Your task to perform on an android device: Check the weather Image 0: 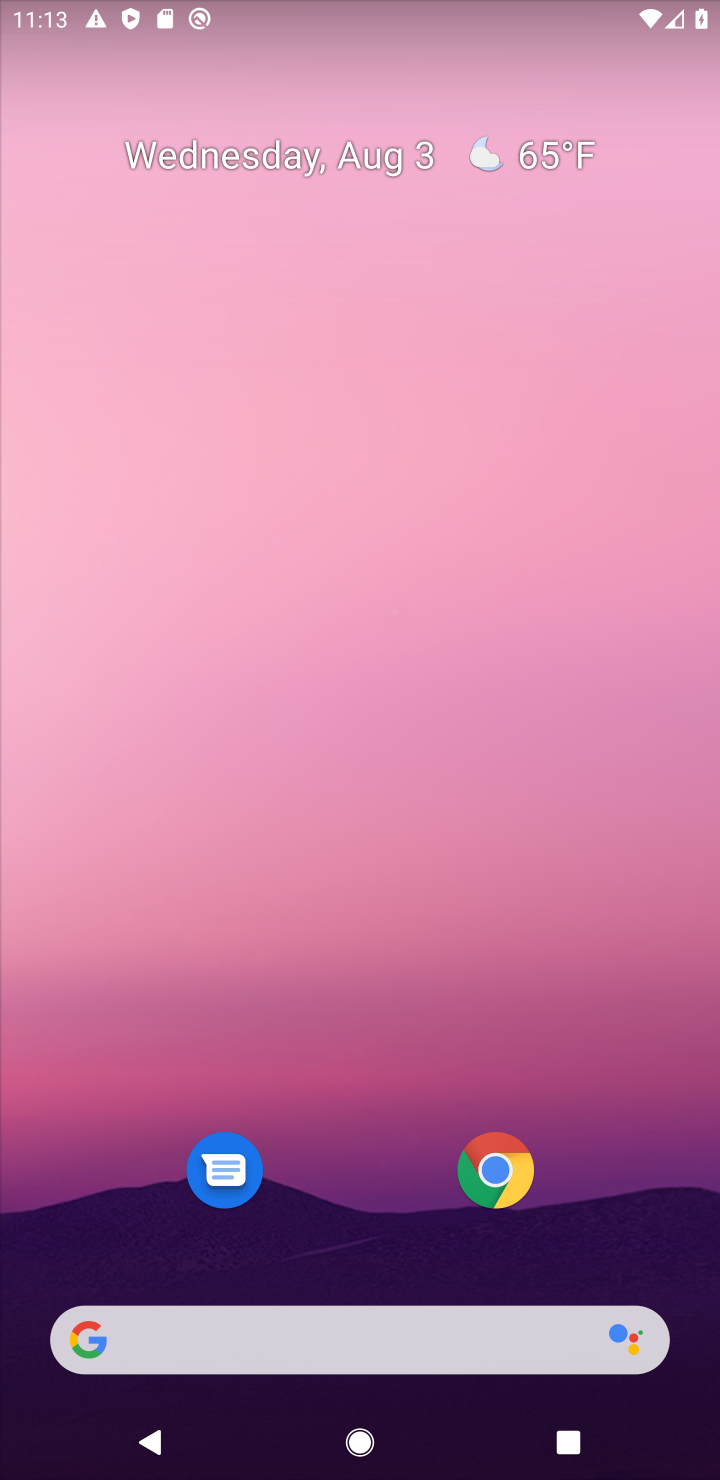
Step 0: drag from (264, 1146) to (400, 282)
Your task to perform on an android device: Check the weather Image 1: 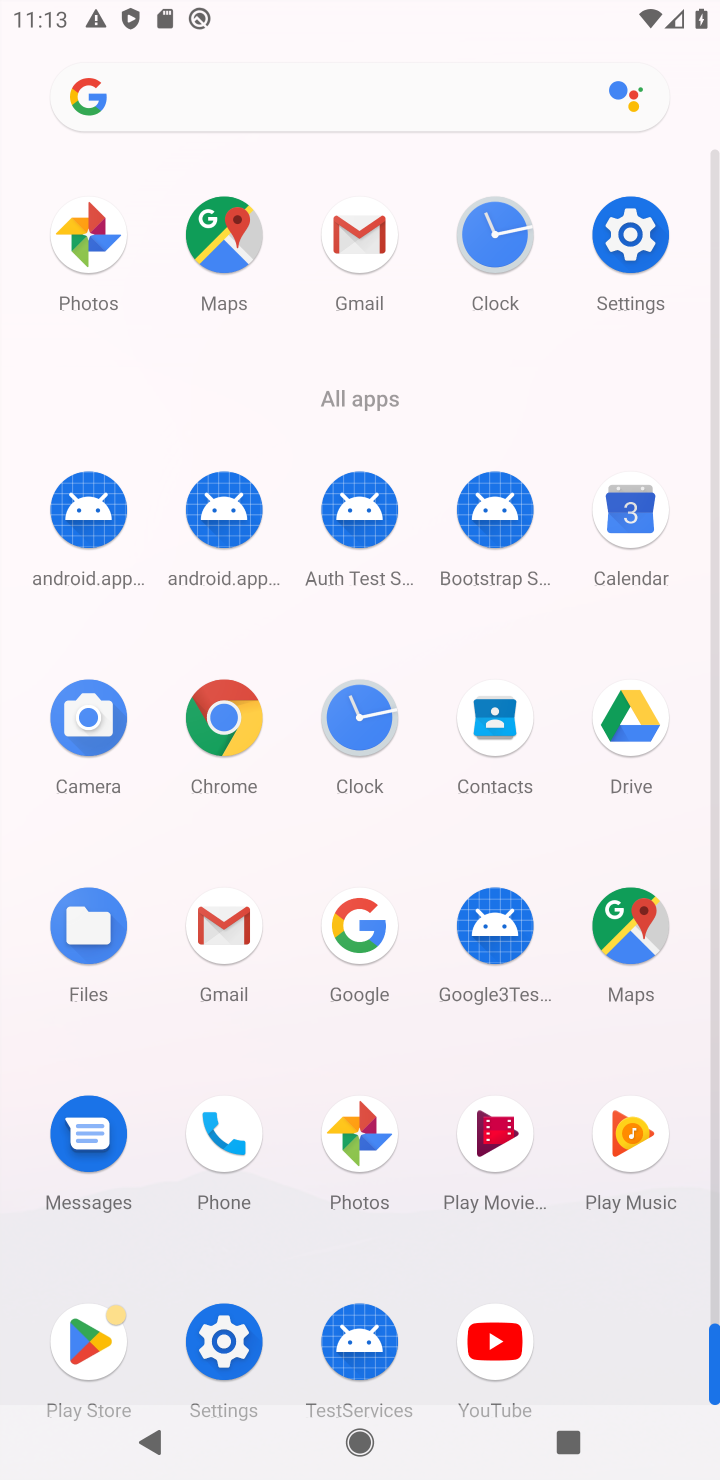
Step 1: click (305, 103)
Your task to perform on an android device: Check the weather Image 2: 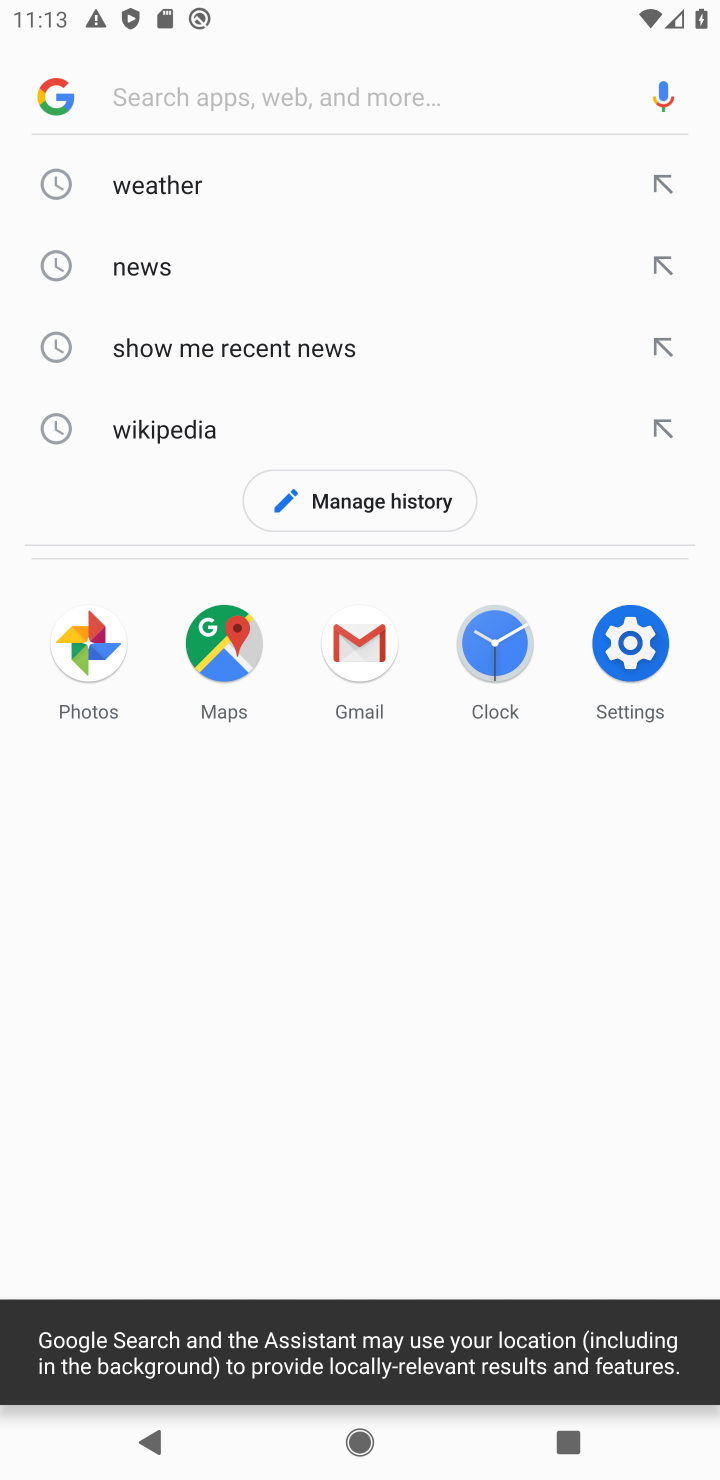
Step 2: click (165, 176)
Your task to perform on an android device: Check the weather Image 3: 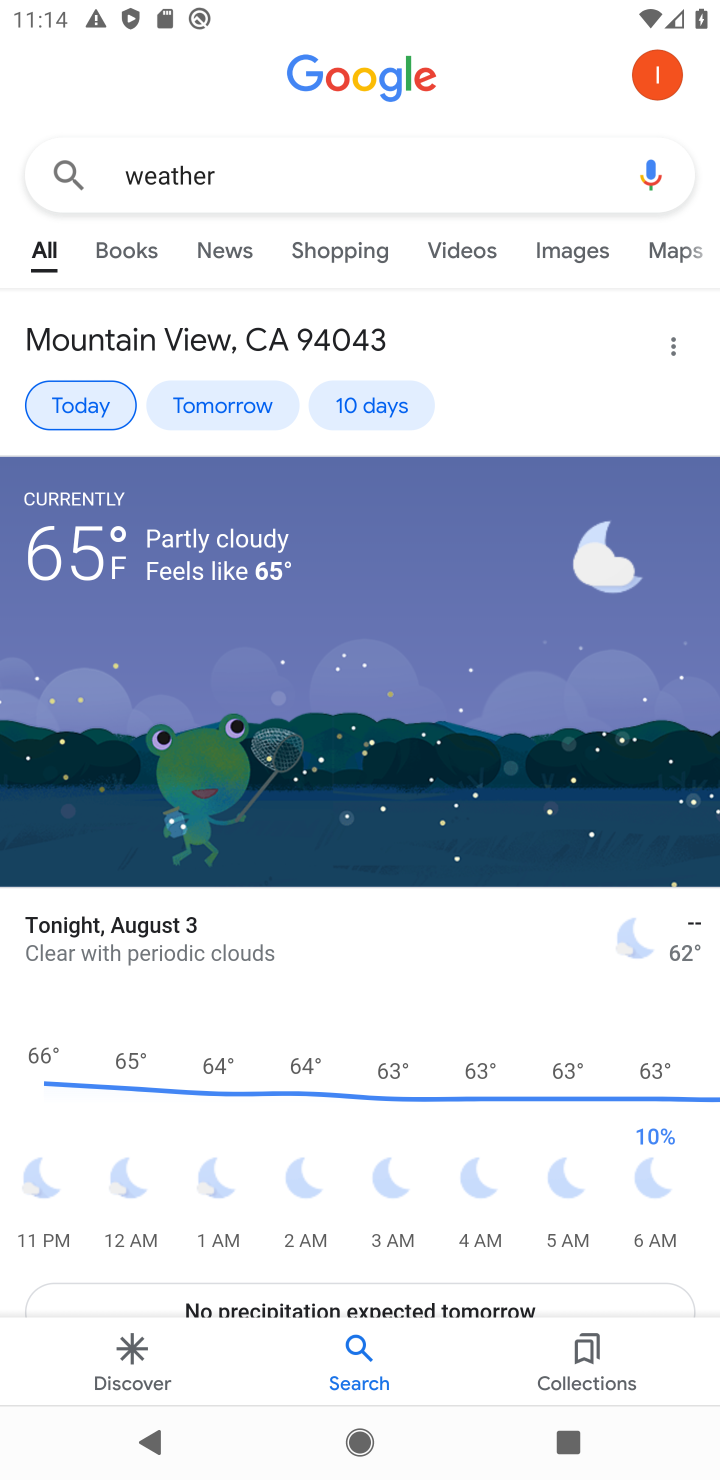
Step 3: task complete